Your task to perform on an android device: empty trash in the gmail app Image 0: 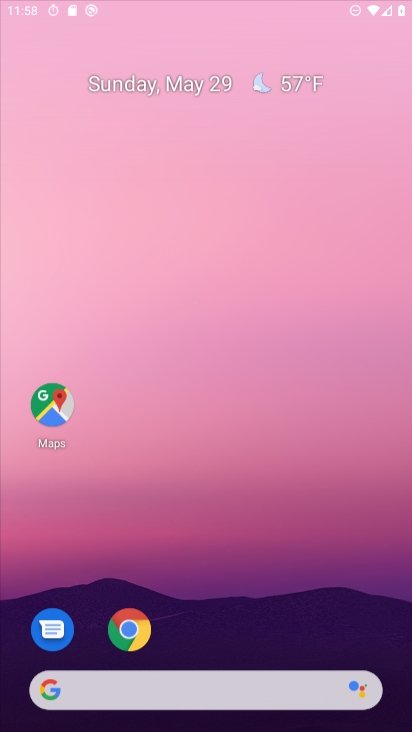
Step 0: press home button
Your task to perform on an android device: empty trash in the gmail app Image 1: 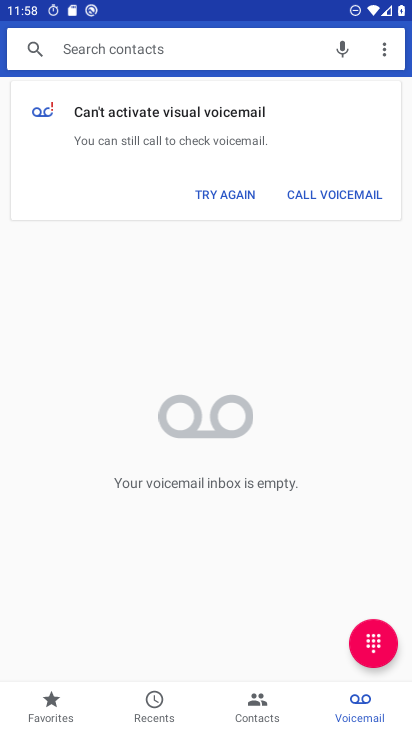
Step 1: drag from (241, 548) to (214, 295)
Your task to perform on an android device: empty trash in the gmail app Image 2: 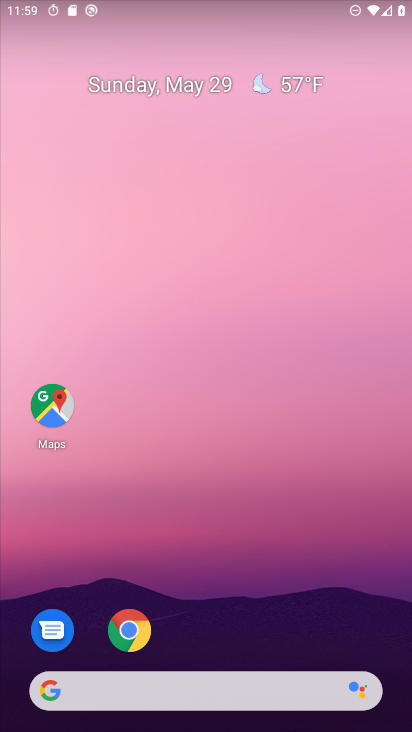
Step 2: drag from (206, 682) to (132, 153)
Your task to perform on an android device: empty trash in the gmail app Image 3: 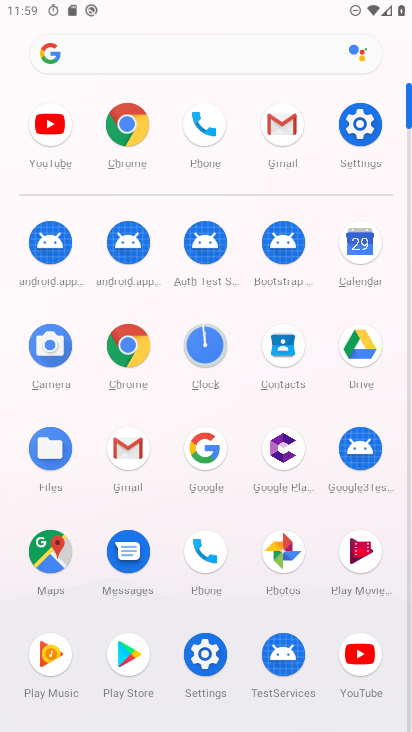
Step 3: click (122, 450)
Your task to perform on an android device: empty trash in the gmail app Image 4: 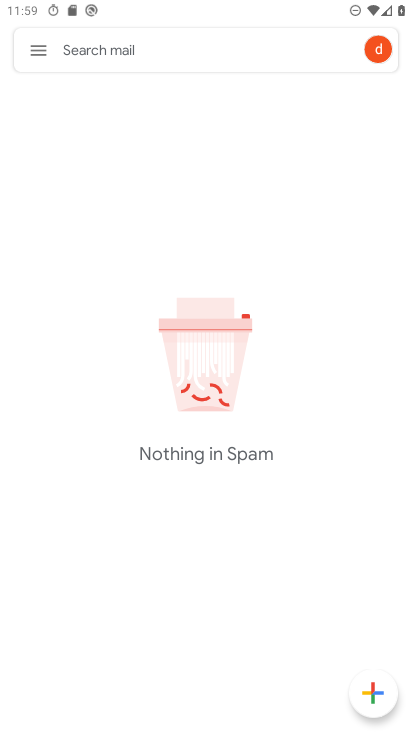
Step 4: click (24, 49)
Your task to perform on an android device: empty trash in the gmail app Image 5: 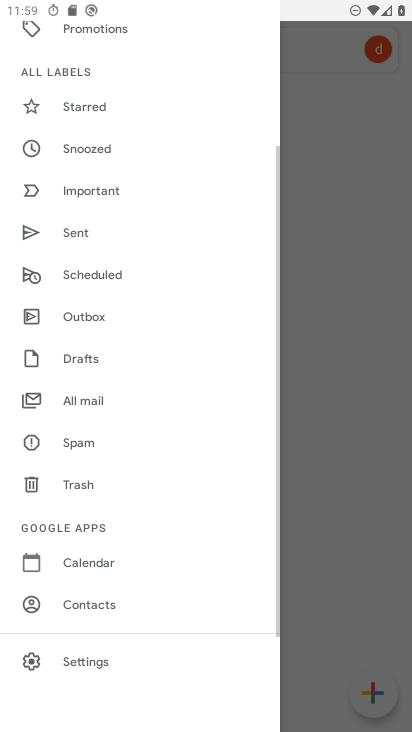
Step 5: click (101, 487)
Your task to perform on an android device: empty trash in the gmail app Image 6: 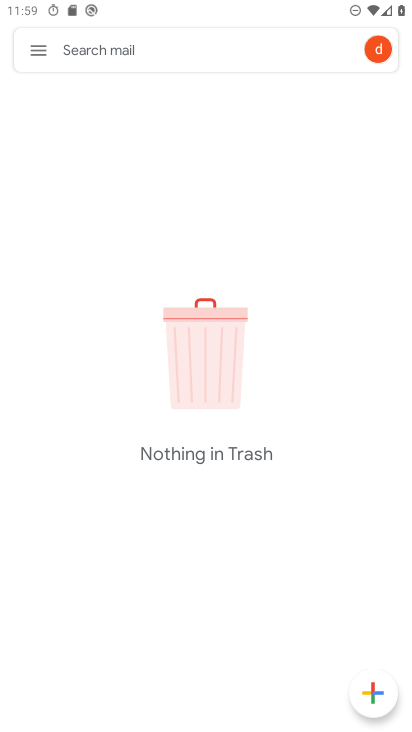
Step 6: task complete